Your task to perform on an android device: allow cookies in the chrome app Image 0: 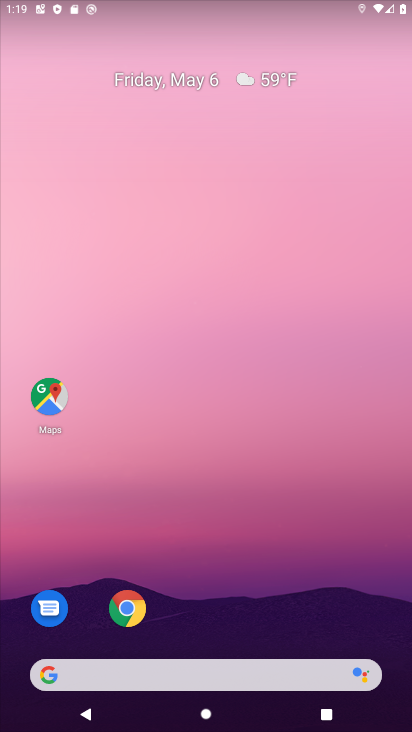
Step 0: drag from (372, 613) to (348, 35)
Your task to perform on an android device: allow cookies in the chrome app Image 1: 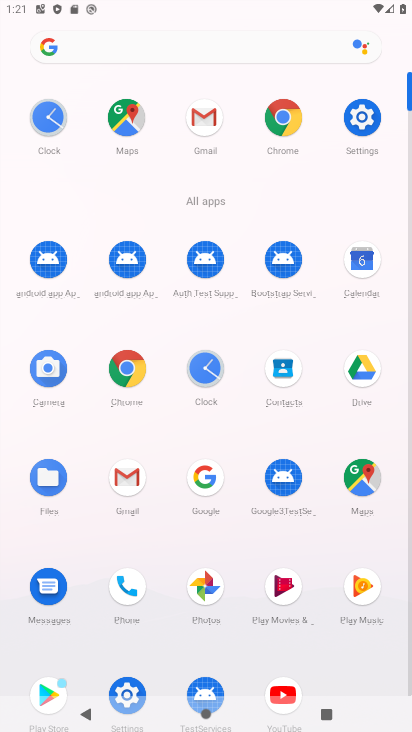
Step 1: click (278, 118)
Your task to perform on an android device: allow cookies in the chrome app Image 2: 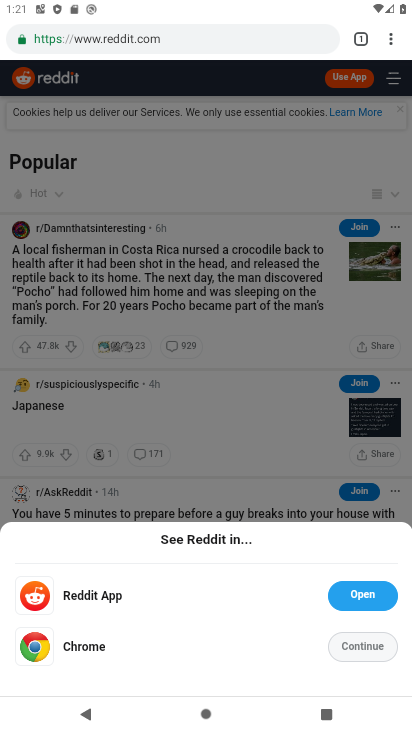
Step 2: drag from (381, 35) to (264, 503)
Your task to perform on an android device: allow cookies in the chrome app Image 3: 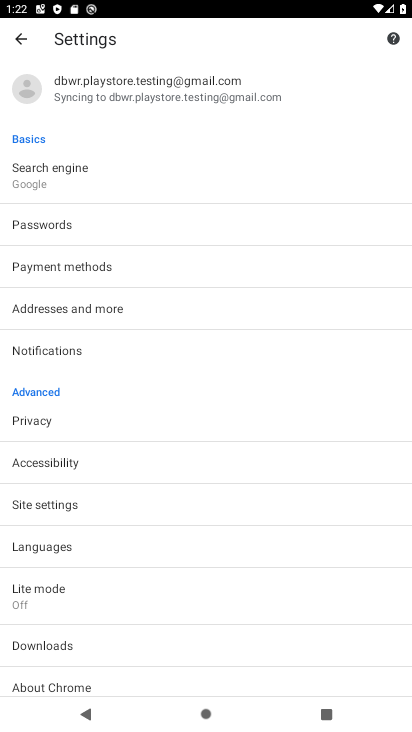
Step 3: click (73, 497)
Your task to perform on an android device: allow cookies in the chrome app Image 4: 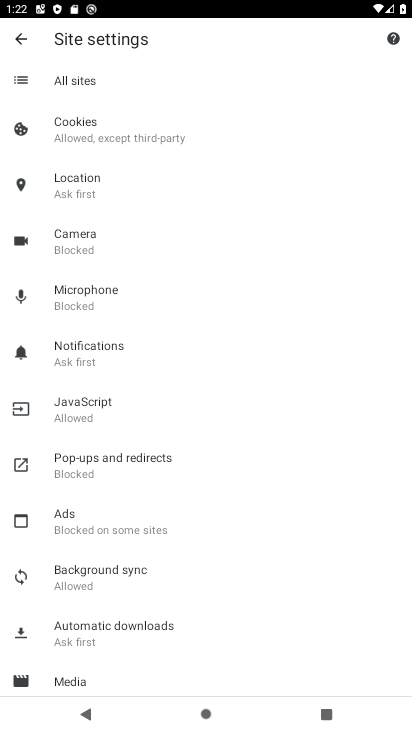
Step 4: click (109, 123)
Your task to perform on an android device: allow cookies in the chrome app Image 5: 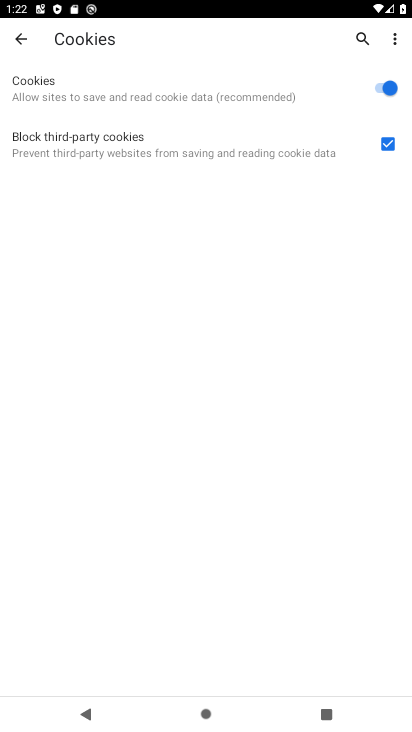
Step 5: task complete